Your task to perform on an android device: Is it going to rain this weekend? Image 0: 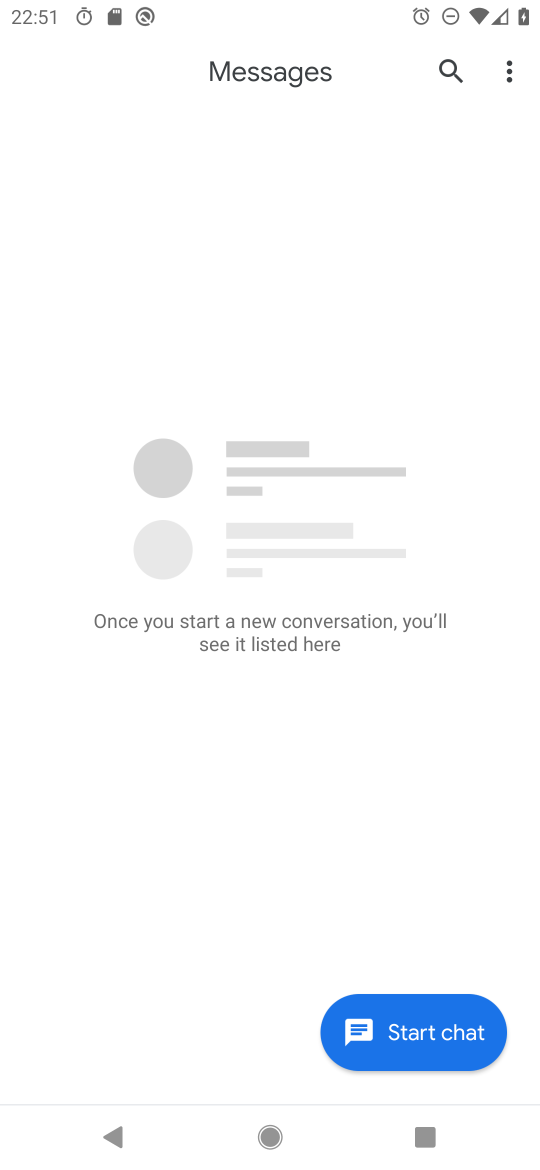
Step 0: press home button
Your task to perform on an android device: Is it going to rain this weekend? Image 1: 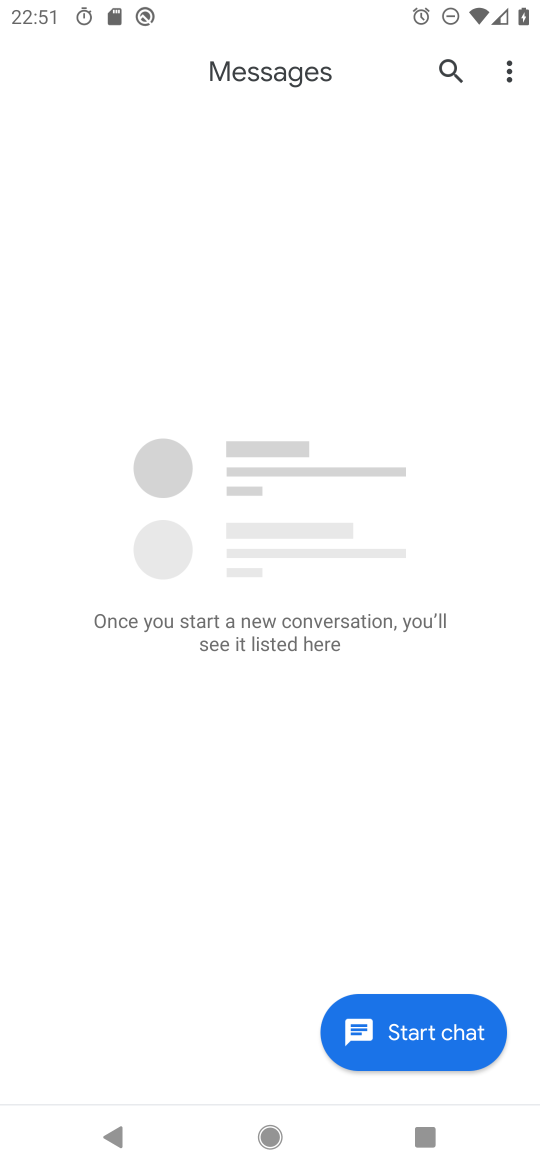
Step 1: drag from (177, 1035) to (271, 338)
Your task to perform on an android device: Is it going to rain this weekend? Image 2: 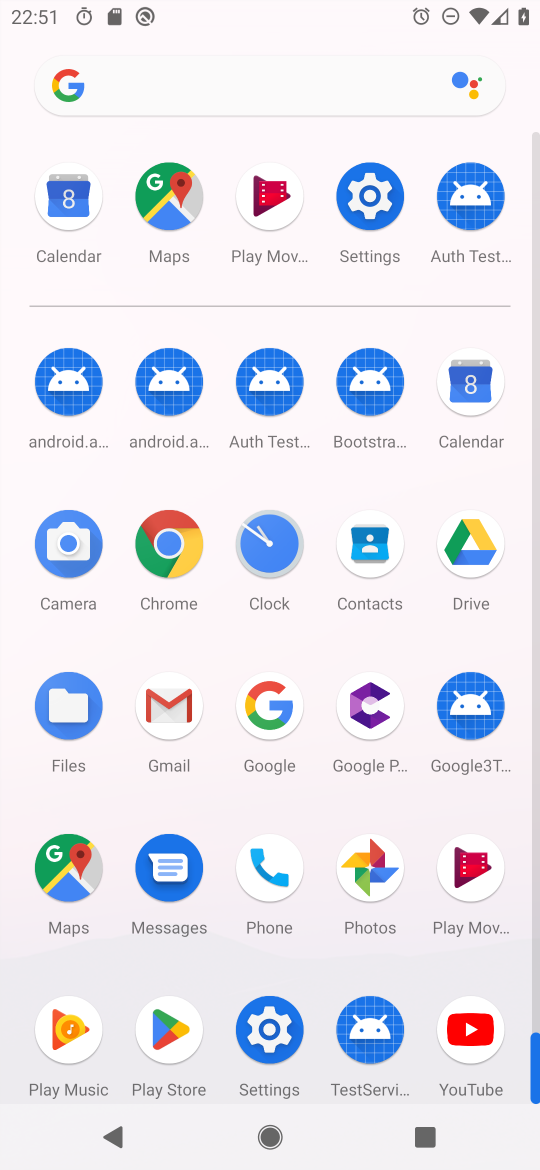
Step 2: drag from (276, 1133) to (336, 693)
Your task to perform on an android device: Is it going to rain this weekend? Image 3: 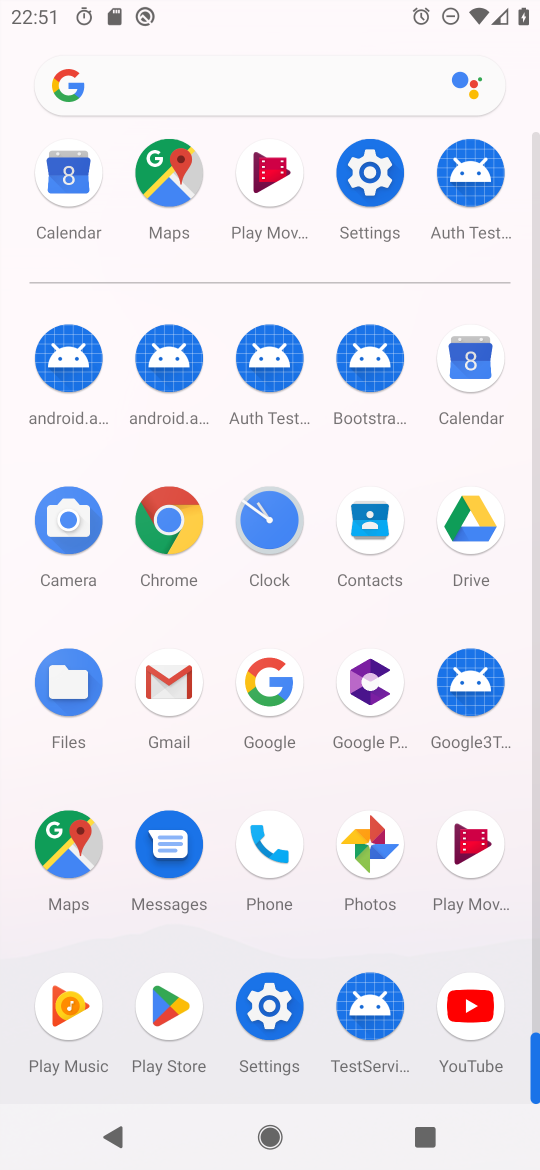
Step 3: click (206, 95)
Your task to perform on an android device: Is it going to rain this weekend? Image 4: 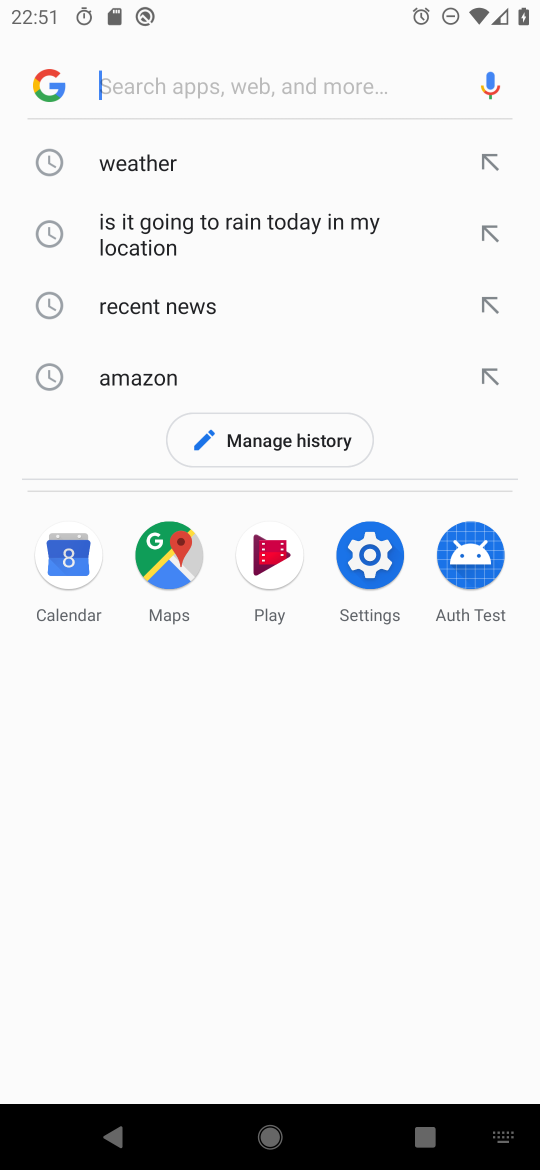
Step 4: type "Is it going to rain this weekend?"
Your task to perform on an android device: Is it going to rain this weekend? Image 5: 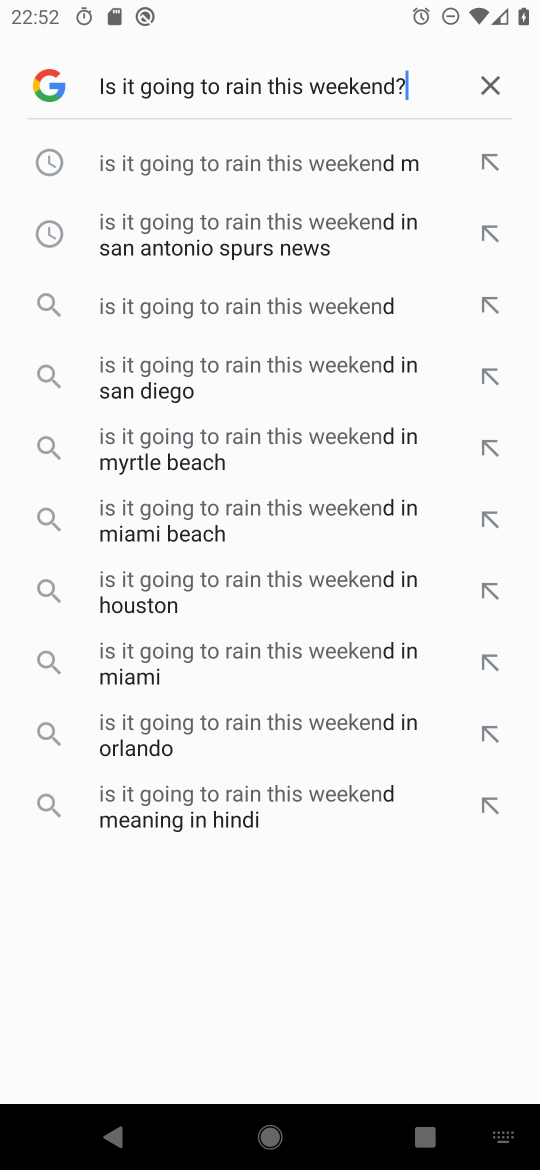
Step 5: type ""
Your task to perform on an android device: Is it going to rain this weekend? Image 6: 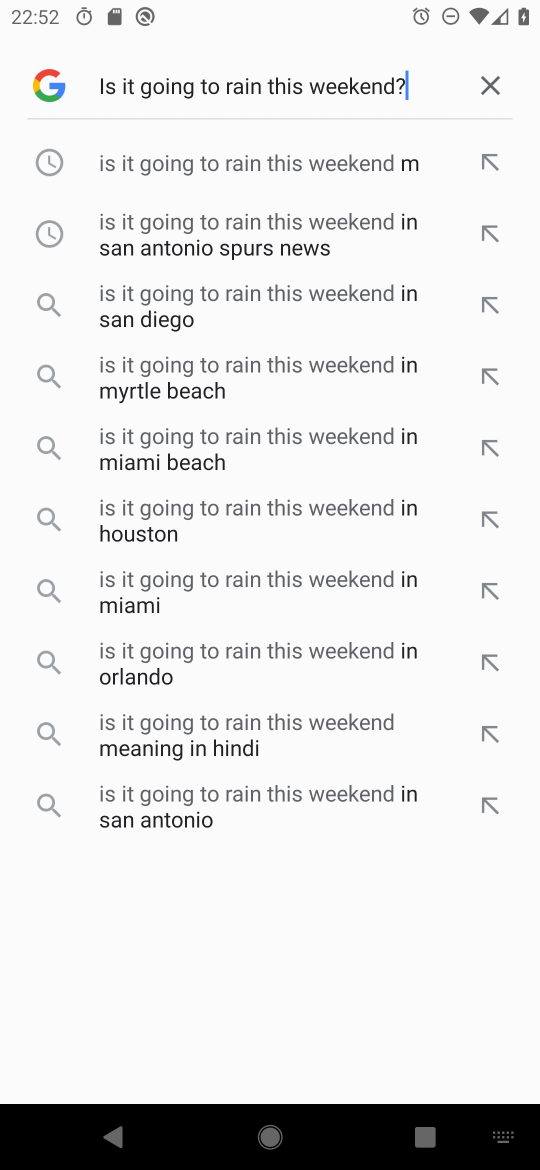
Step 6: click (277, 172)
Your task to perform on an android device: Is it going to rain this weekend? Image 7: 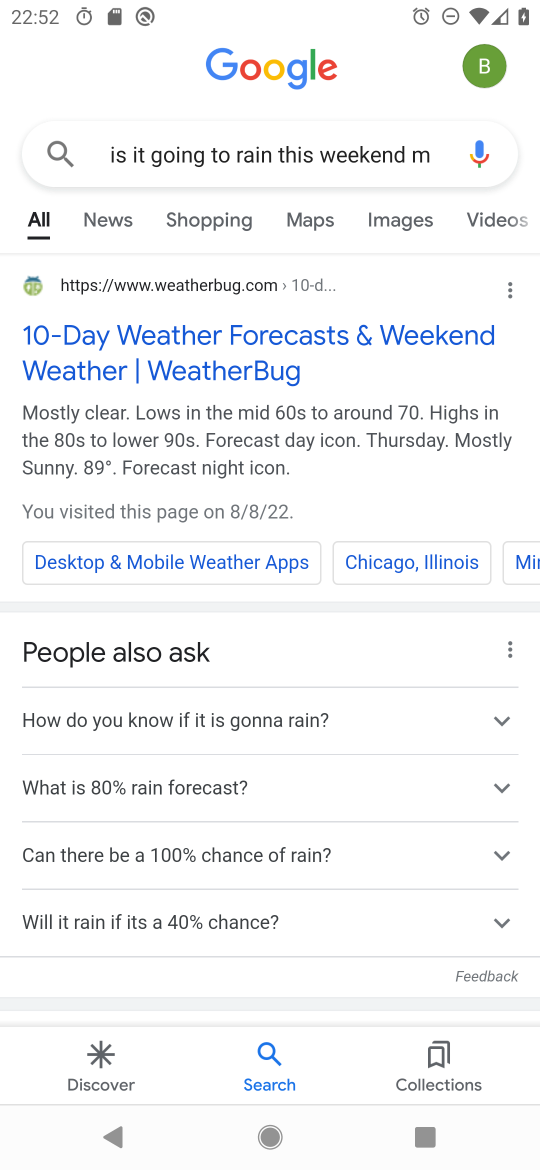
Step 7: click (267, 363)
Your task to perform on an android device: Is it going to rain this weekend? Image 8: 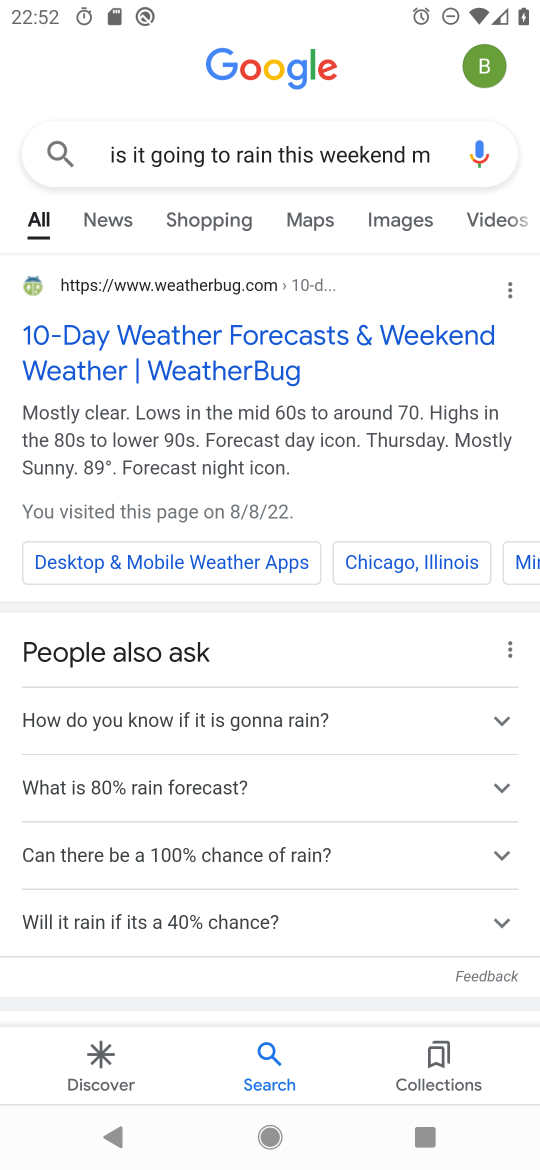
Step 8: task complete